Your task to perform on an android device: set the timer Image 0: 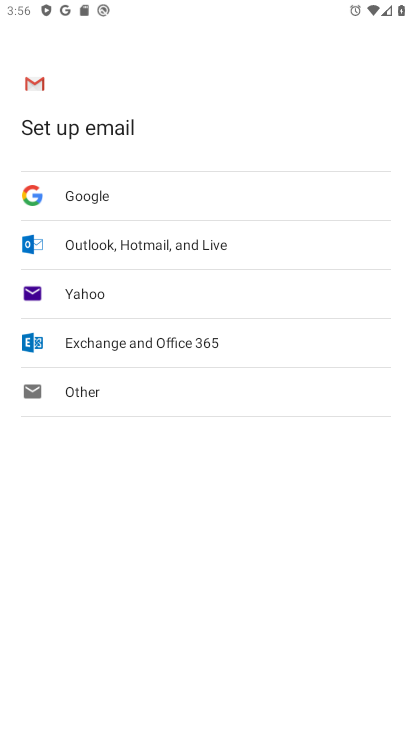
Step 0: press back button
Your task to perform on an android device: set the timer Image 1: 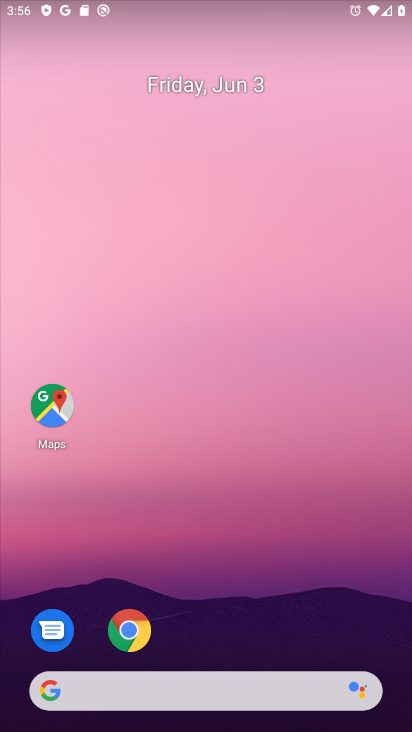
Step 1: drag from (255, 181) to (226, 10)
Your task to perform on an android device: set the timer Image 2: 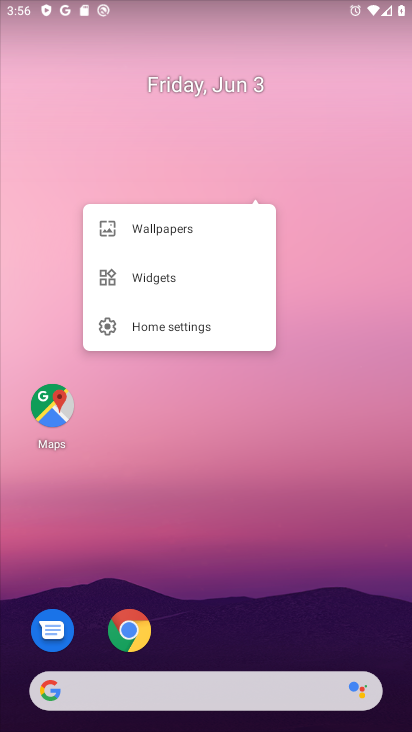
Step 2: click (330, 575)
Your task to perform on an android device: set the timer Image 3: 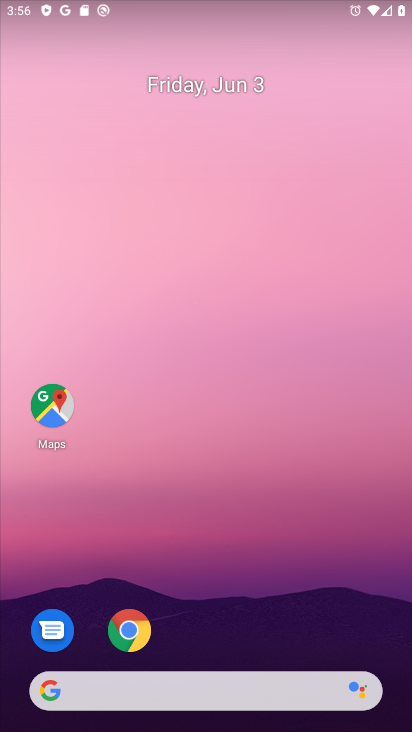
Step 3: drag from (327, 549) to (304, 32)
Your task to perform on an android device: set the timer Image 4: 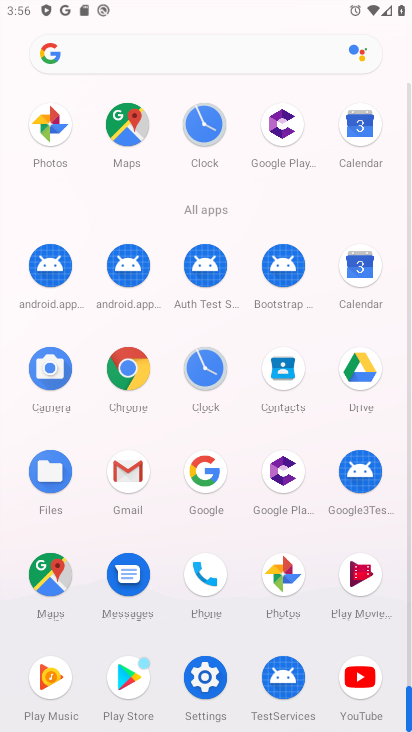
Step 4: click (205, 367)
Your task to perform on an android device: set the timer Image 5: 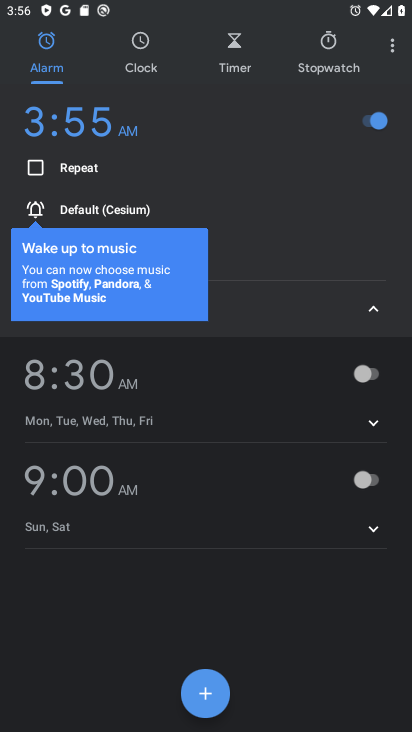
Step 5: click (237, 46)
Your task to perform on an android device: set the timer Image 6: 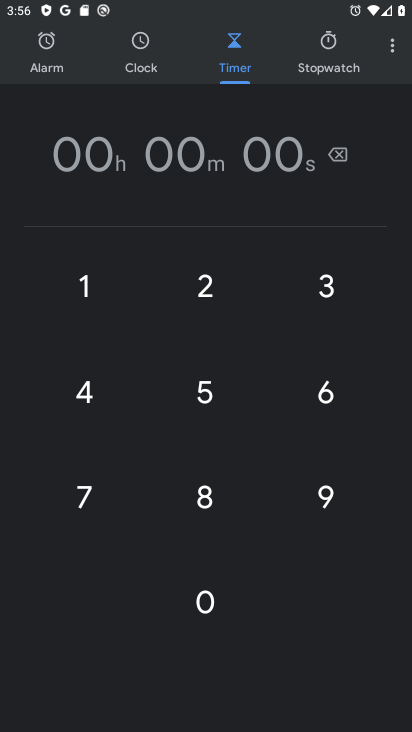
Step 6: click (219, 276)
Your task to perform on an android device: set the timer Image 7: 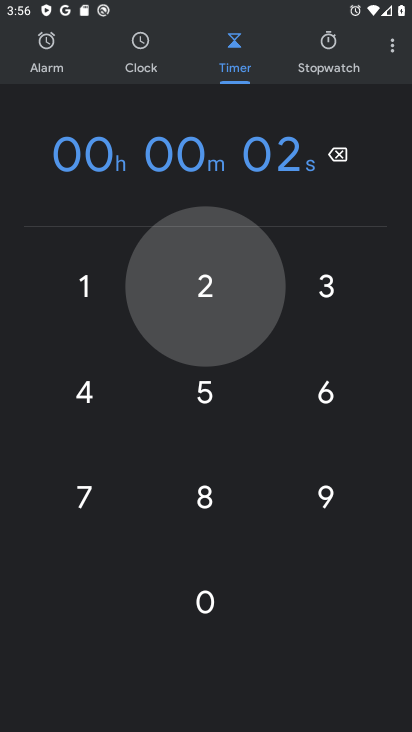
Step 7: click (311, 276)
Your task to perform on an android device: set the timer Image 8: 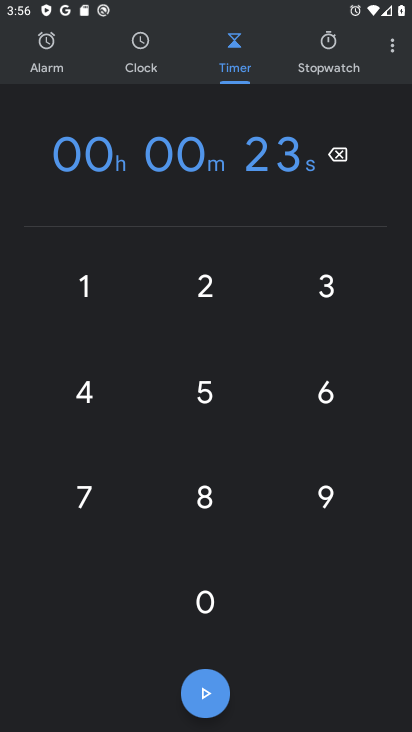
Step 8: click (315, 390)
Your task to perform on an android device: set the timer Image 9: 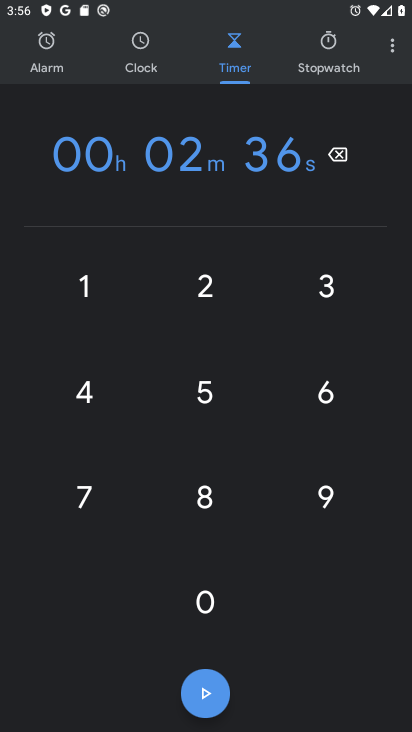
Step 9: click (206, 497)
Your task to perform on an android device: set the timer Image 10: 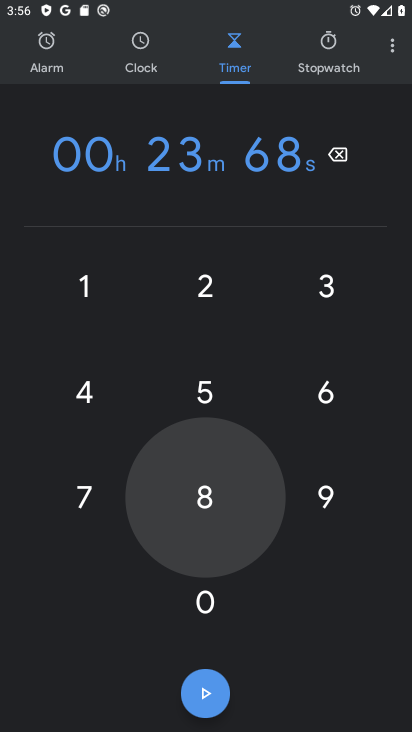
Step 10: click (97, 499)
Your task to perform on an android device: set the timer Image 11: 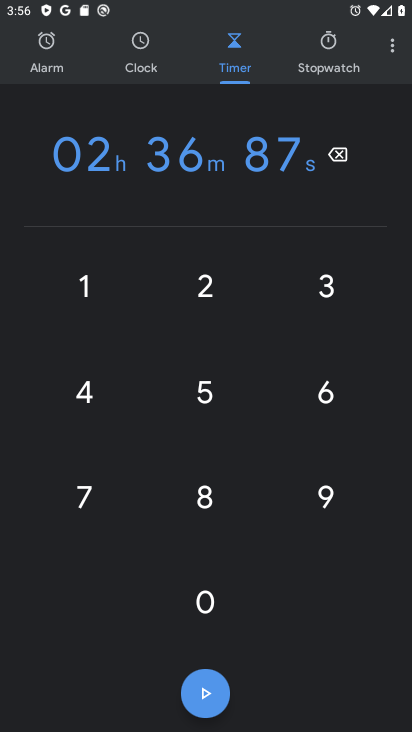
Step 11: click (196, 691)
Your task to perform on an android device: set the timer Image 12: 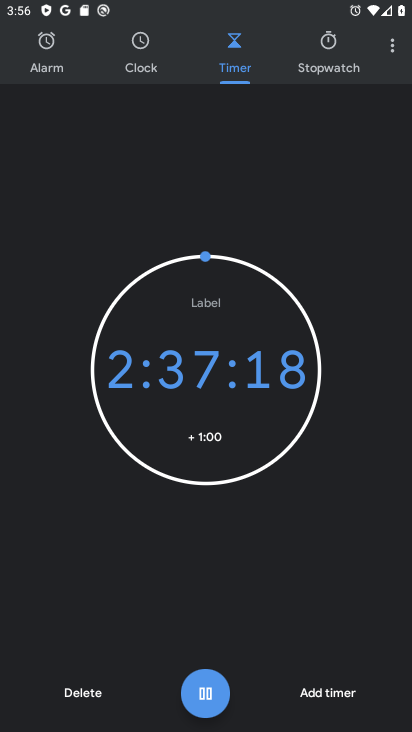
Step 12: task complete